Your task to perform on an android device: open app "LinkedIn" (install if not already installed) and go to login screen Image 0: 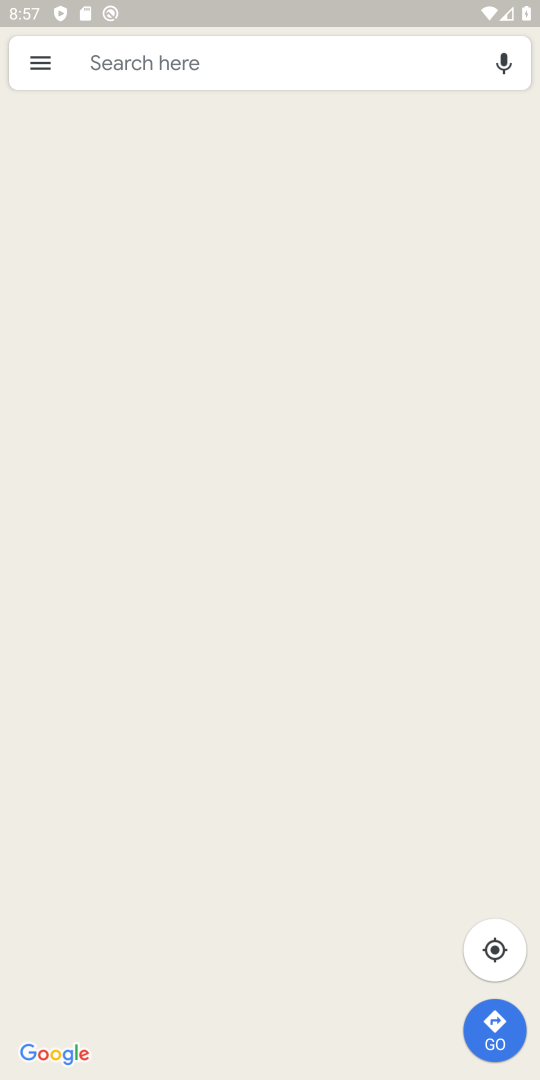
Step 0: drag from (273, 22) to (216, 17)
Your task to perform on an android device: open app "LinkedIn" (install if not already installed) and go to login screen Image 1: 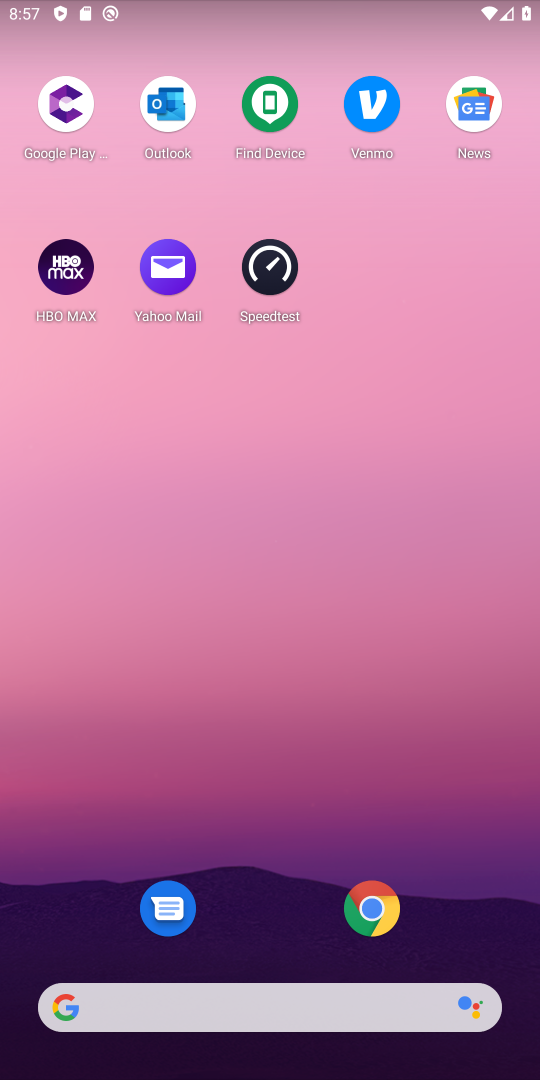
Step 1: drag from (291, 671) to (309, 58)
Your task to perform on an android device: open app "LinkedIn" (install if not already installed) and go to login screen Image 2: 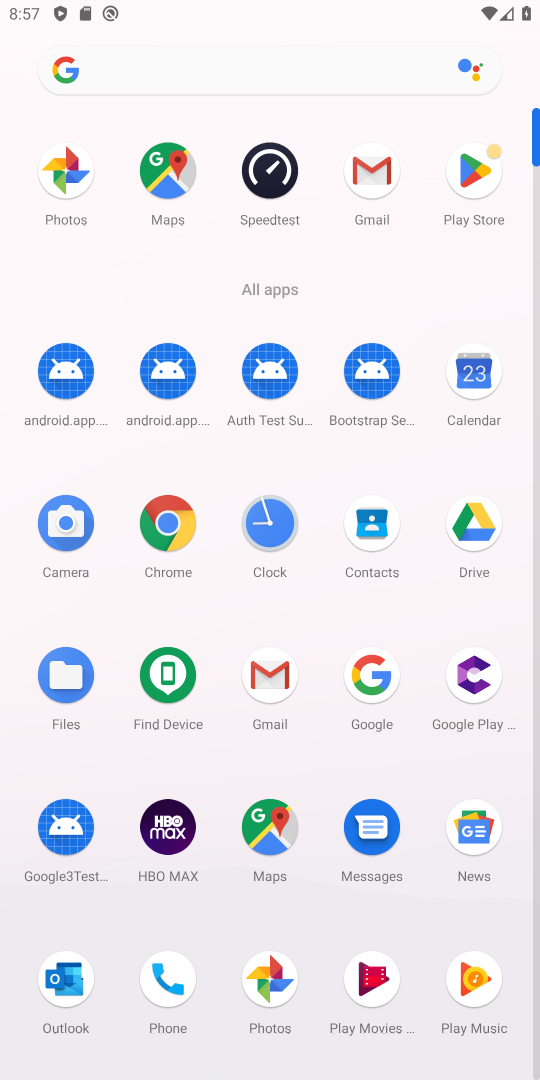
Step 2: click (485, 192)
Your task to perform on an android device: open app "LinkedIn" (install if not already installed) and go to login screen Image 3: 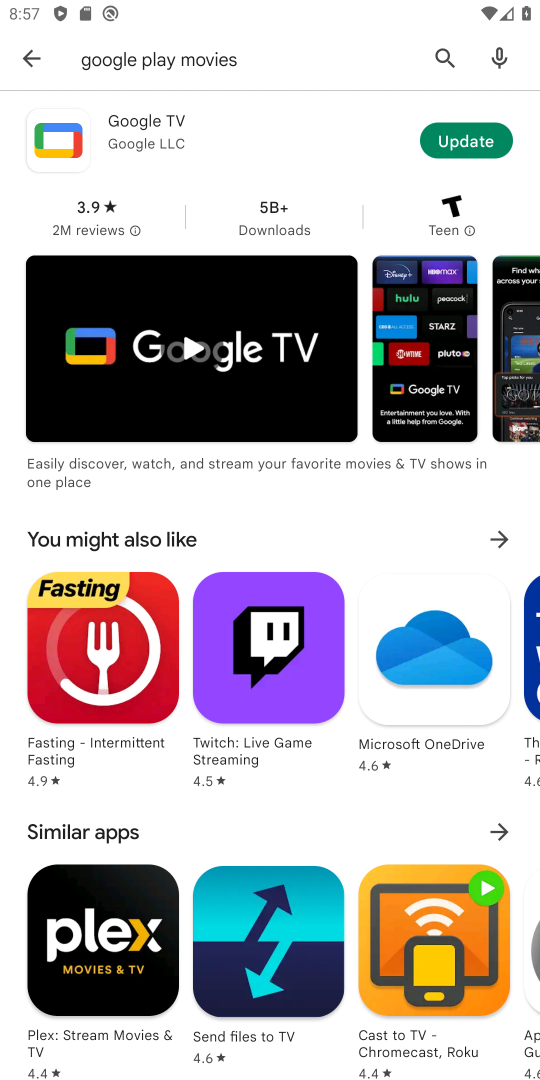
Step 3: click (248, 74)
Your task to perform on an android device: open app "LinkedIn" (install if not already installed) and go to login screen Image 4: 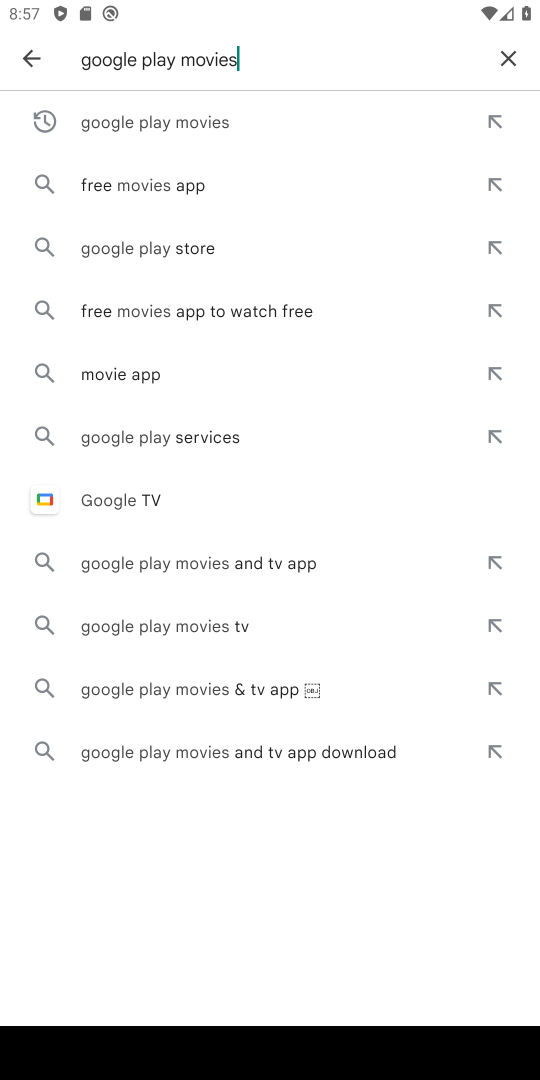
Step 4: click (512, 55)
Your task to perform on an android device: open app "LinkedIn" (install if not already installed) and go to login screen Image 5: 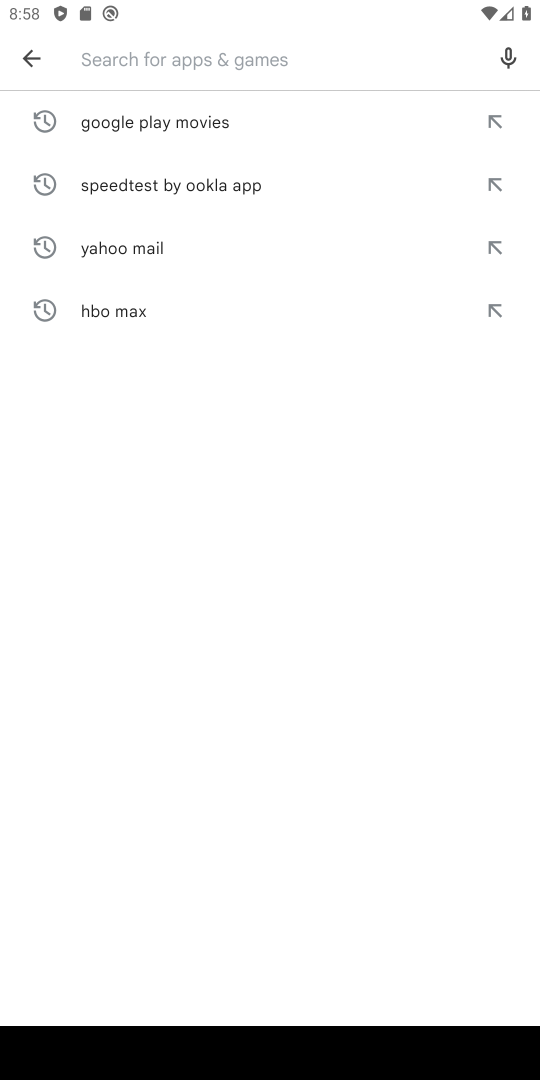
Step 5: type "linkedIn"
Your task to perform on an android device: open app "LinkedIn" (install if not already installed) and go to login screen Image 6: 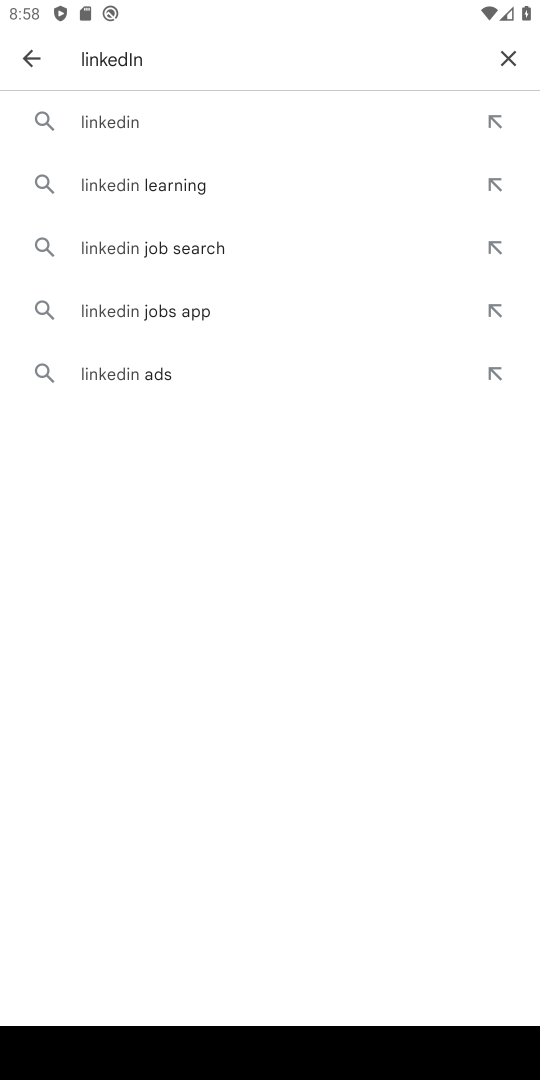
Step 6: click (149, 124)
Your task to perform on an android device: open app "LinkedIn" (install if not already installed) and go to login screen Image 7: 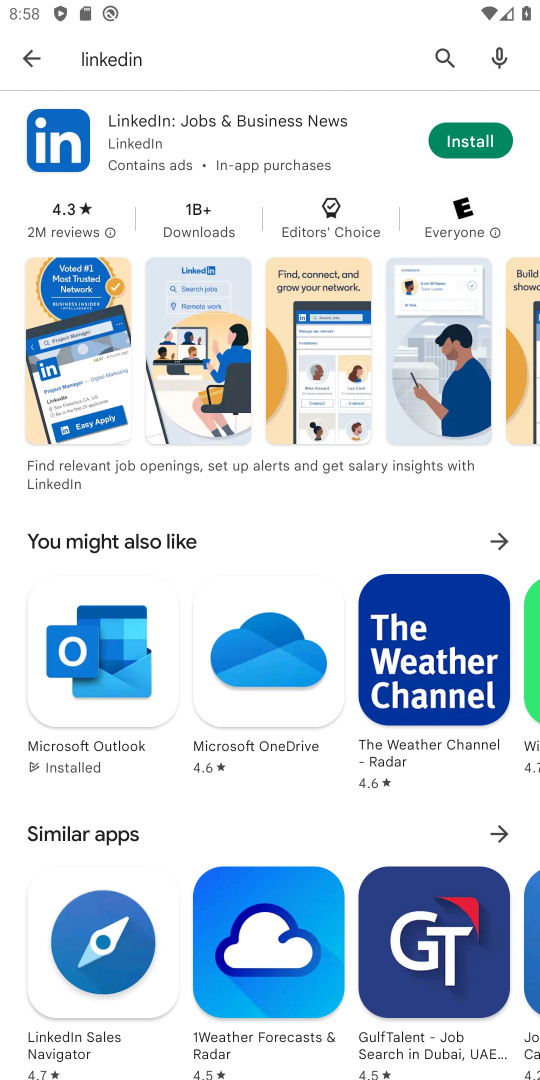
Step 7: click (496, 143)
Your task to perform on an android device: open app "LinkedIn" (install if not already installed) and go to login screen Image 8: 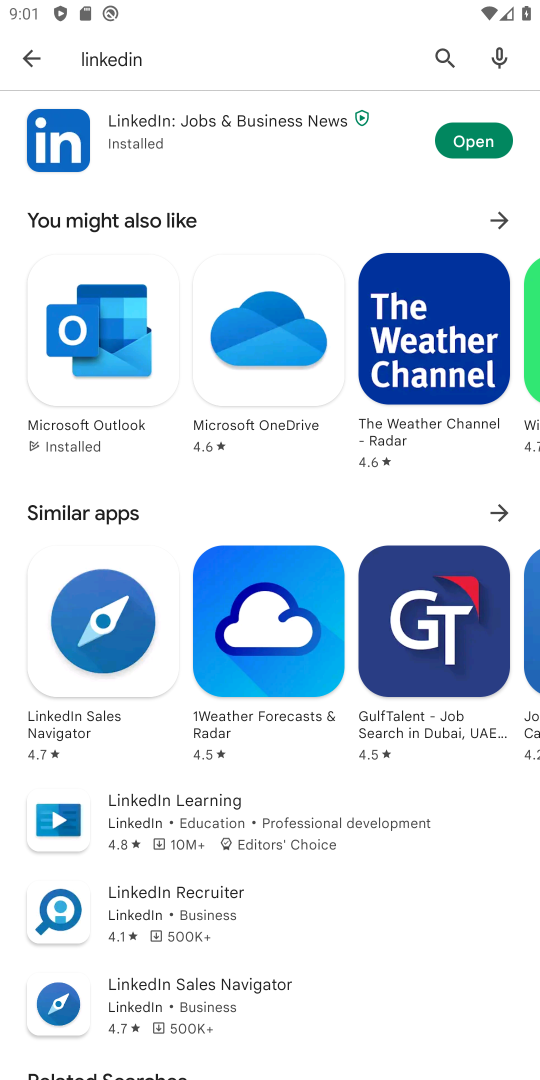
Step 8: click (483, 142)
Your task to perform on an android device: open app "LinkedIn" (install if not already installed) and go to login screen Image 9: 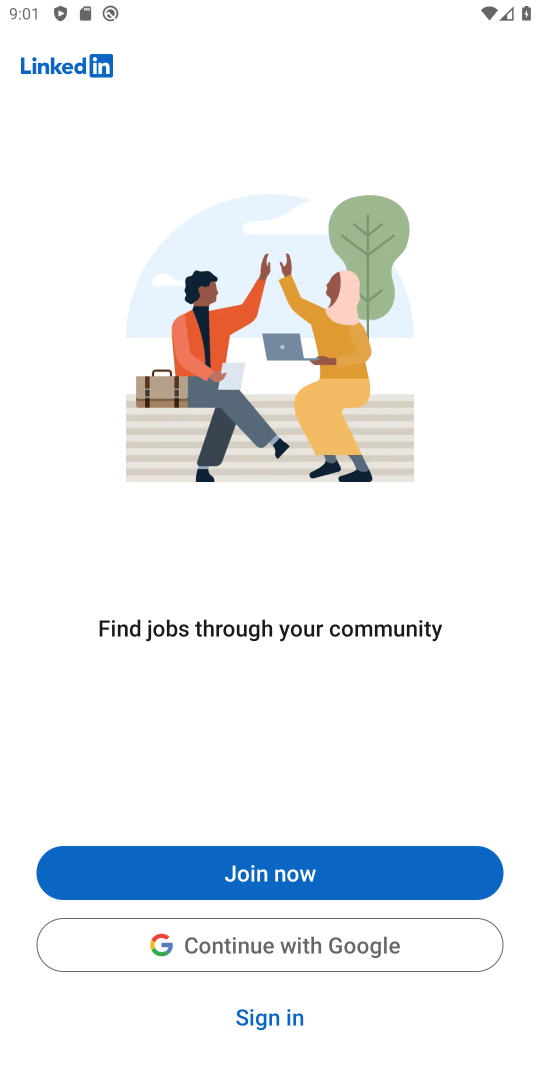
Step 9: click (292, 1020)
Your task to perform on an android device: open app "LinkedIn" (install if not already installed) and go to login screen Image 10: 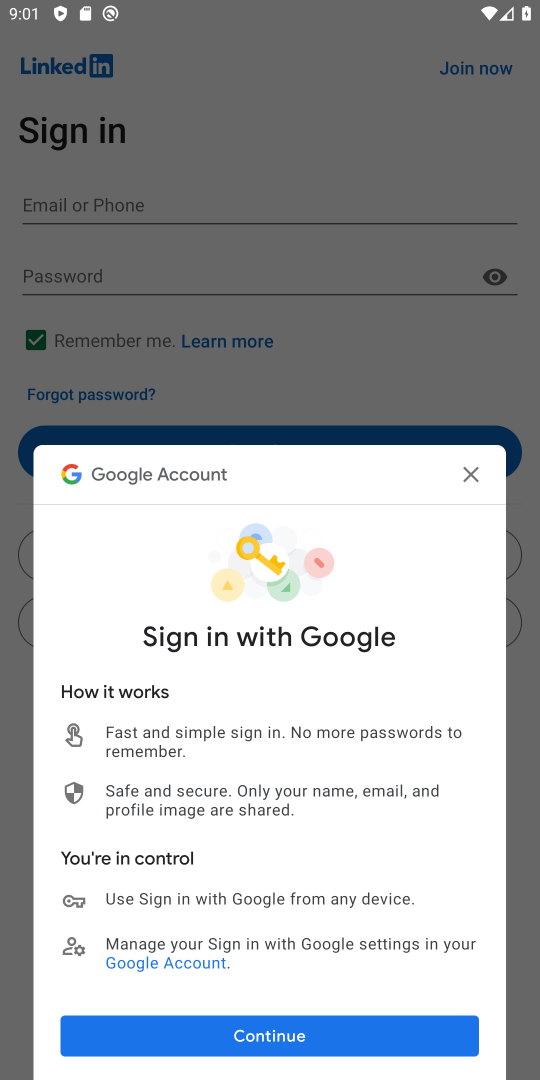
Step 10: task complete